Your task to perform on an android device: What is the recent news? Image 0: 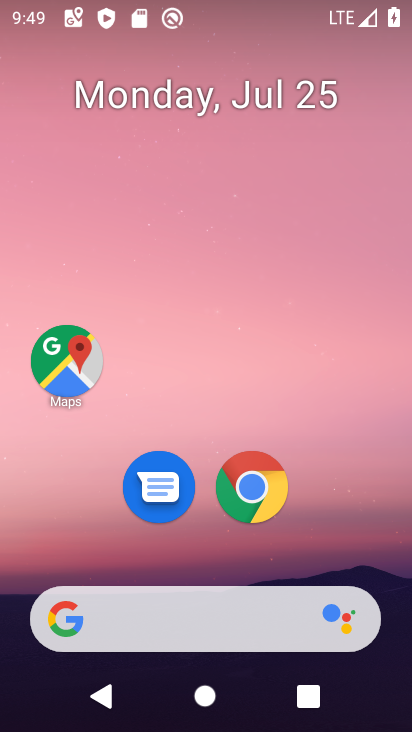
Step 0: click (160, 601)
Your task to perform on an android device: What is the recent news? Image 1: 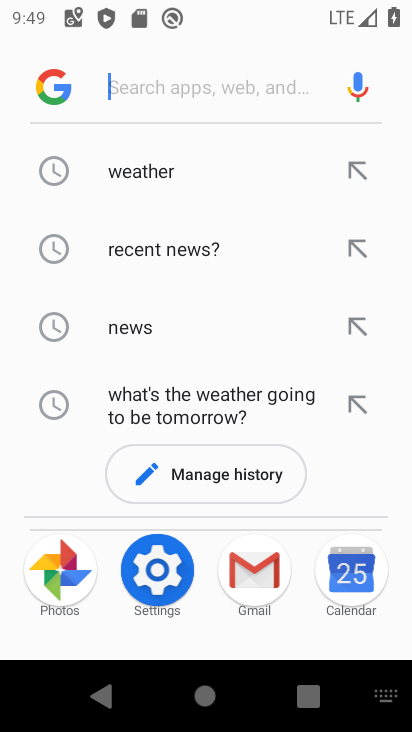
Step 1: click (131, 243)
Your task to perform on an android device: What is the recent news? Image 2: 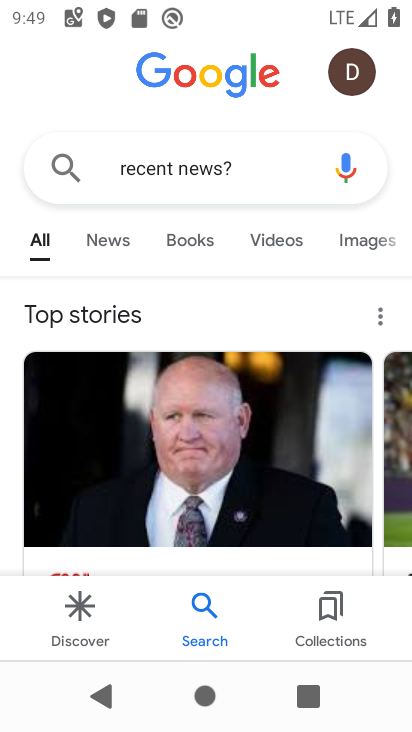
Step 2: task complete